Your task to perform on an android device: stop showing notifications on the lock screen Image 0: 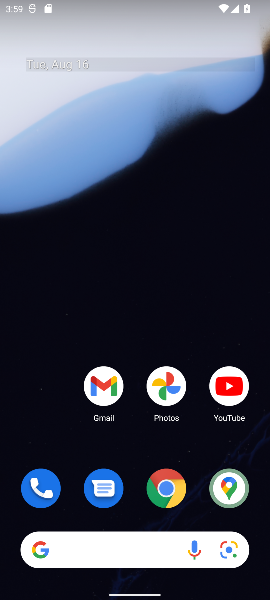
Step 0: drag from (186, 210) to (197, 87)
Your task to perform on an android device: stop showing notifications on the lock screen Image 1: 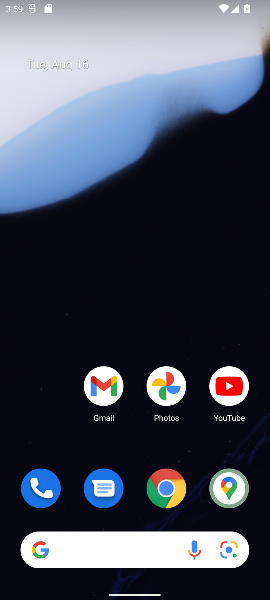
Step 1: drag from (146, 362) to (170, 138)
Your task to perform on an android device: stop showing notifications on the lock screen Image 2: 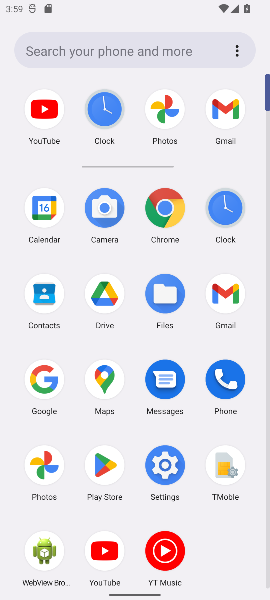
Step 2: click (152, 477)
Your task to perform on an android device: stop showing notifications on the lock screen Image 3: 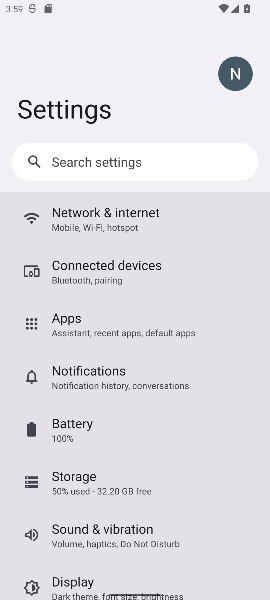
Step 3: task complete